Your task to perform on an android device: turn on priority inbox in the gmail app Image 0: 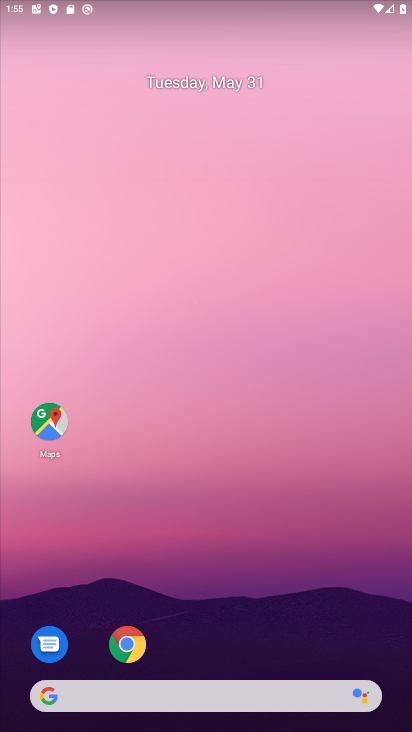
Step 0: drag from (390, 708) to (342, 272)
Your task to perform on an android device: turn on priority inbox in the gmail app Image 1: 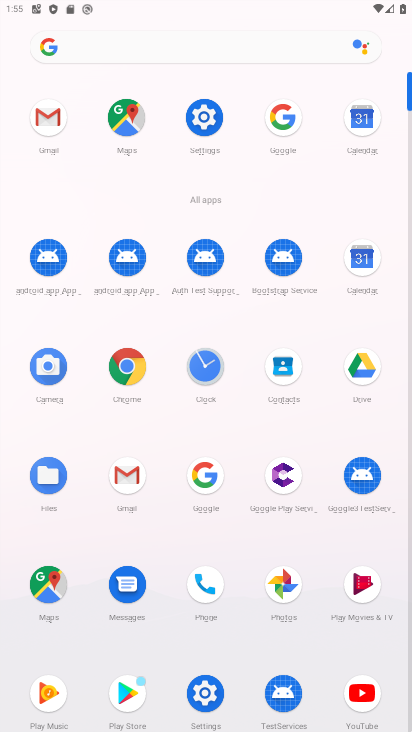
Step 1: click (132, 485)
Your task to perform on an android device: turn on priority inbox in the gmail app Image 2: 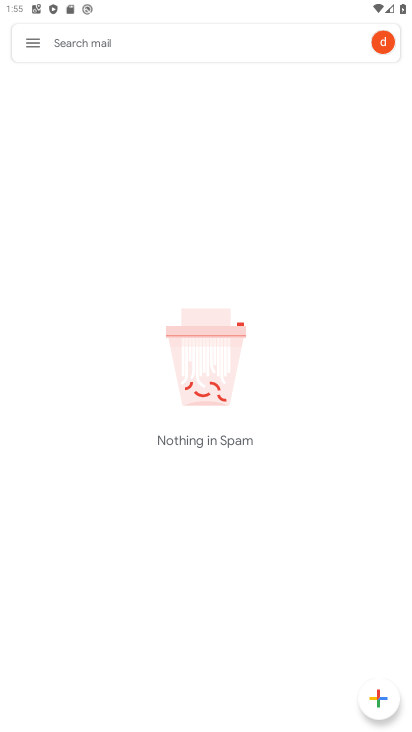
Step 2: click (36, 42)
Your task to perform on an android device: turn on priority inbox in the gmail app Image 3: 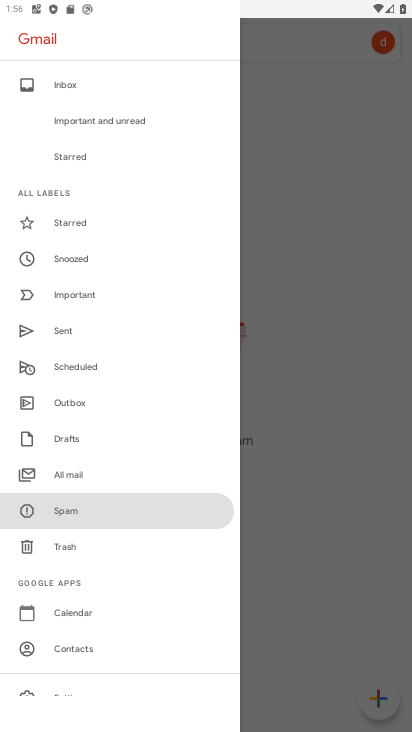
Step 3: drag from (164, 651) to (169, 306)
Your task to perform on an android device: turn on priority inbox in the gmail app Image 4: 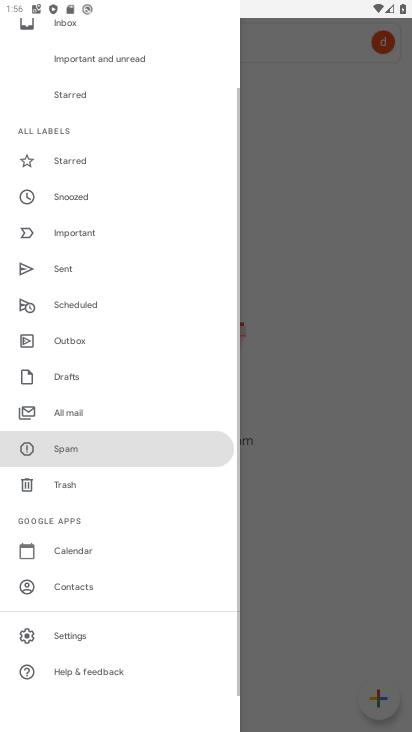
Step 4: click (81, 632)
Your task to perform on an android device: turn on priority inbox in the gmail app Image 5: 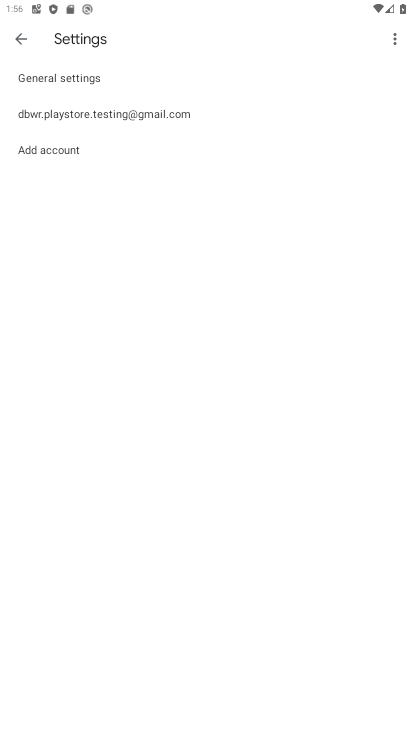
Step 5: click (392, 35)
Your task to perform on an android device: turn on priority inbox in the gmail app Image 6: 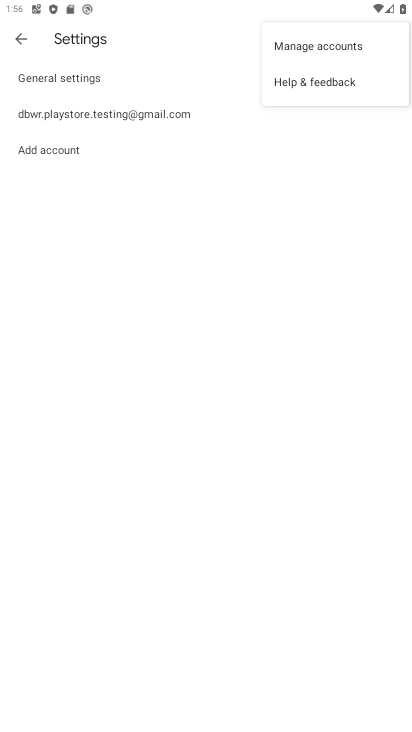
Step 6: click (34, 109)
Your task to perform on an android device: turn on priority inbox in the gmail app Image 7: 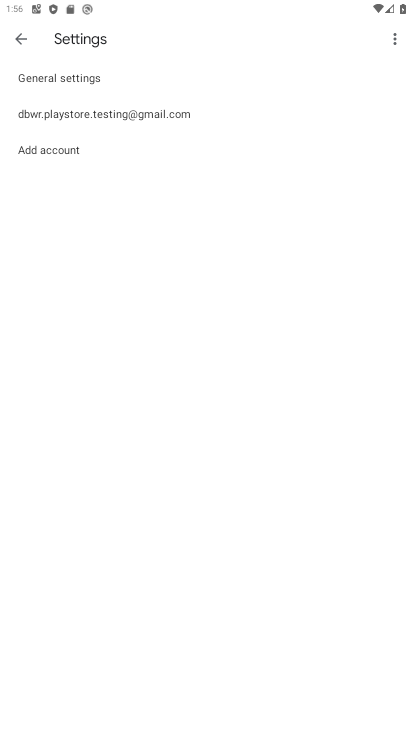
Step 7: click (39, 113)
Your task to perform on an android device: turn on priority inbox in the gmail app Image 8: 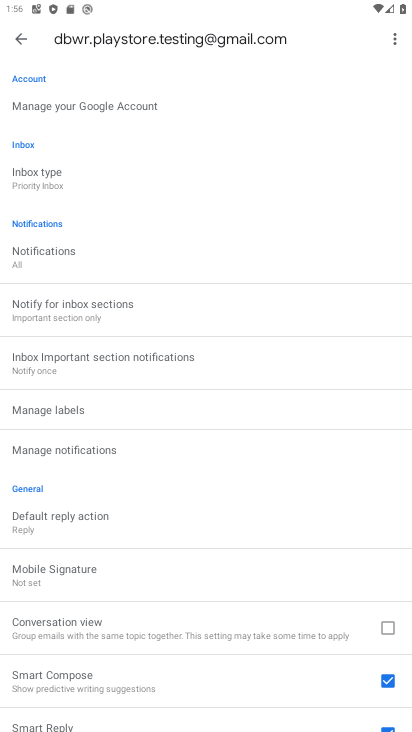
Step 8: task complete